Your task to perform on an android device: Go to CNN.com Image 0: 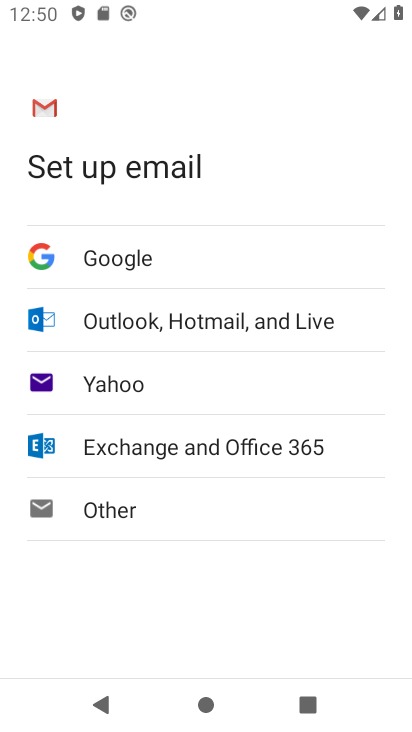
Step 0: press home button
Your task to perform on an android device: Go to CNN.com Image 1: 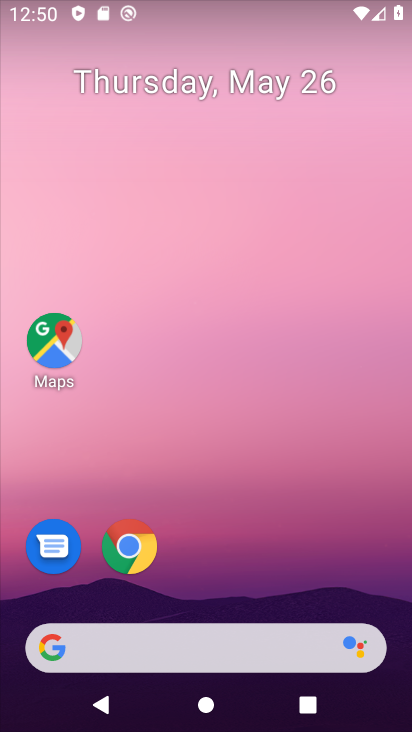
Step 1: click (141, 550)
Your task to perform on an android device: Go to CNN.com Image 2: 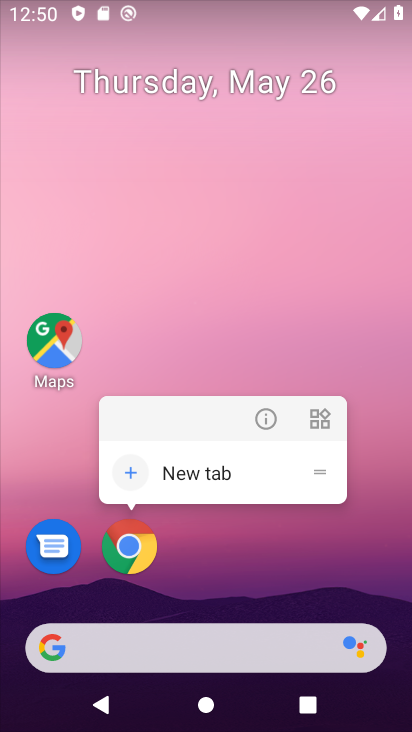
Step 2: click (142, 554)
Your task to perform on an android device: Go to CNN.com Image 3: 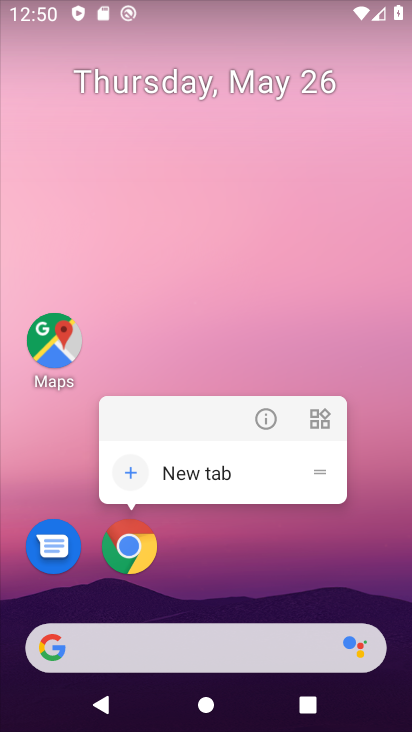
Step 3: click (116, 562)
Your task to perform on an android device: Go to CNN.com Image 4: 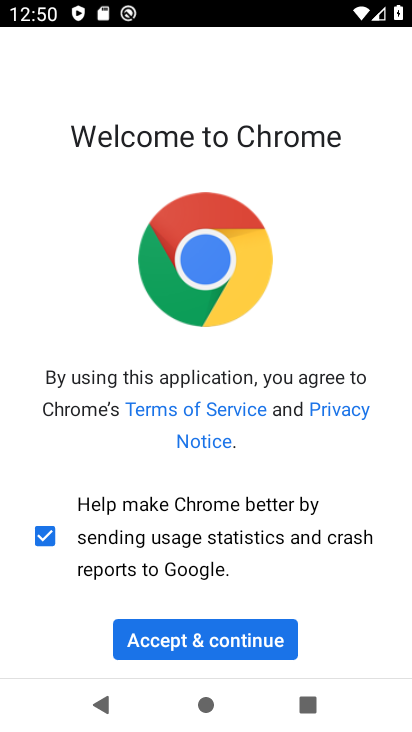
Step 4: click (259, 642)
Your task to perform on an android device: Go to CNN.com Image 5: 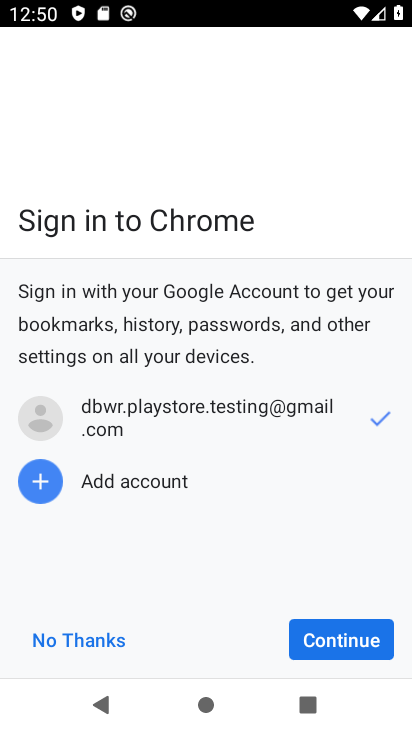
Step 5: click (348, 646)
Your task to perform on an android device: Go to CNN.com Image 6: 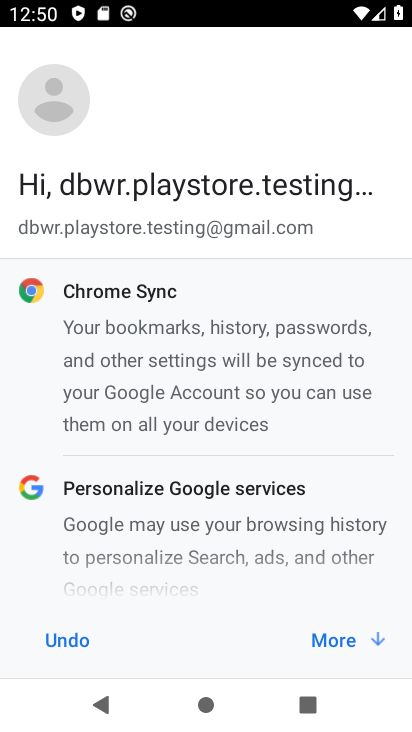
Step 6: click (354, 635)
Your task to perform on an android device: Go to CNN.com Image 7: 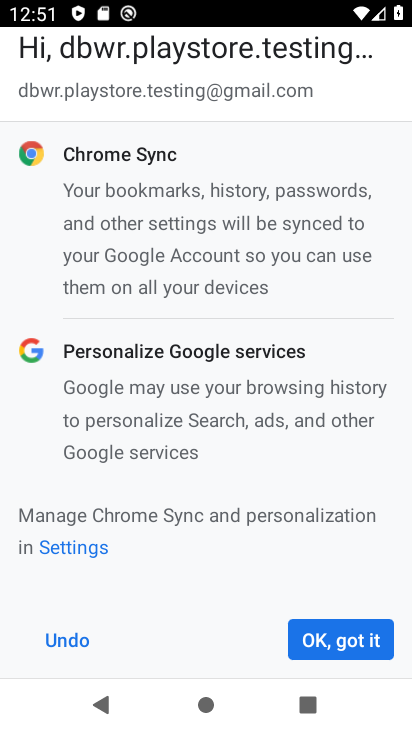
Step 7: click (355, 634)
Your task to perform on an android device: Go to CNN.com Image 8: 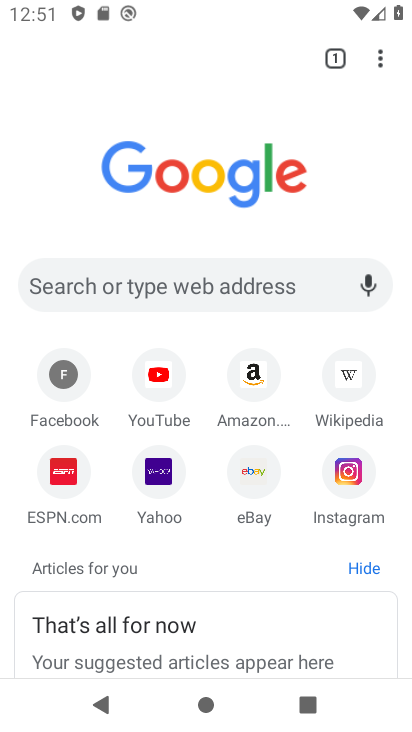
Step 8: click (234, 276)
Your task to perform on an android device: Go to CNN.com Image 9: 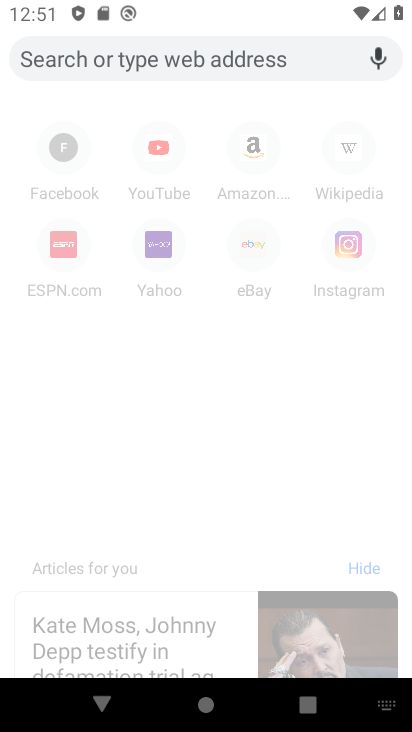
Step 9: type "CNN.com"
Your task to perform on an android device: Go to CNN.com Image 10: 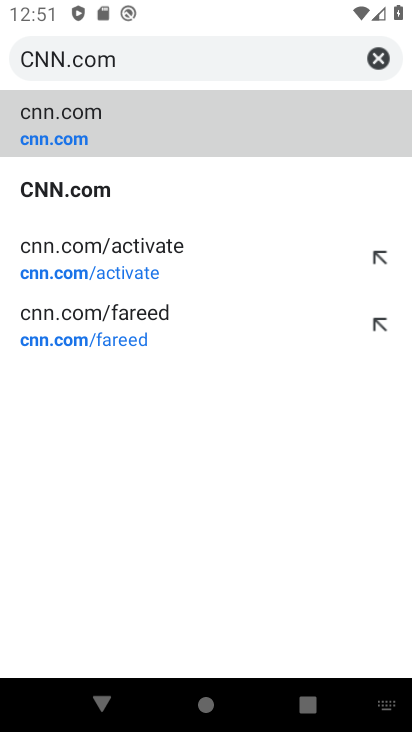
Step 10: click (144, 196)
Your task to perform on an android device: Go to CNN.com Image 11: 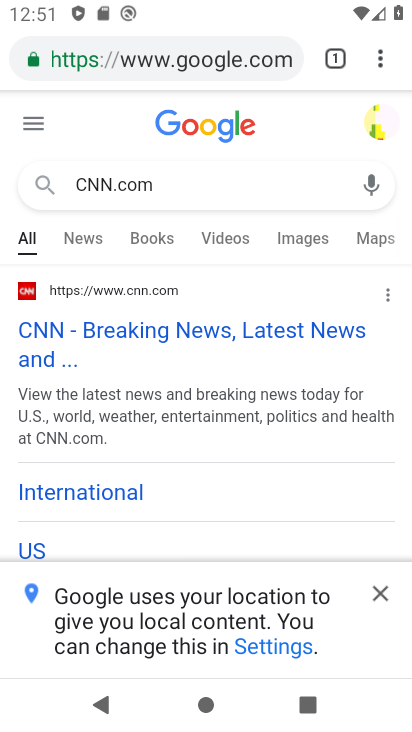
Step 11: click (106, 323)
Your task to perform on an android device: Go to CNN.com Image 12: 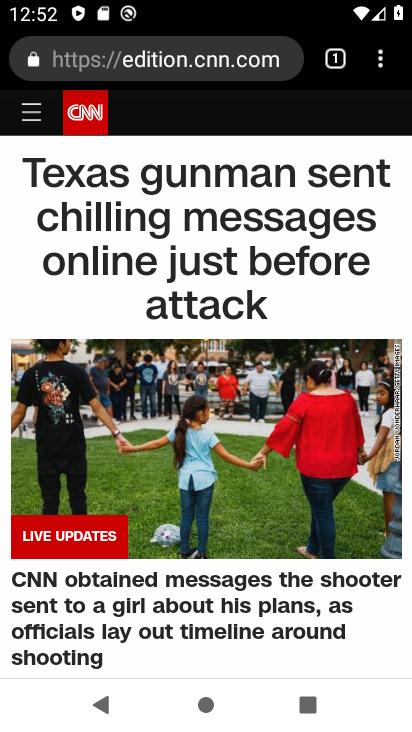
Step 12: task complete